Your task to perform on an android device: turn pop-ups on in chrome Image 0: 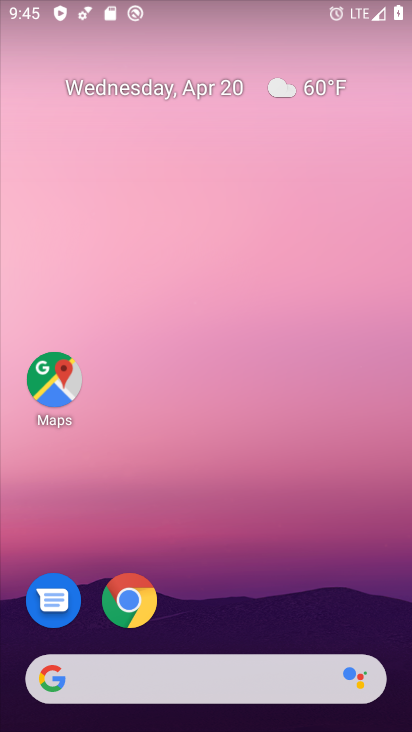
Step 0: click (134, 606)
Your task to perform on an android device: turn pop-ups on in chrome Image 1: 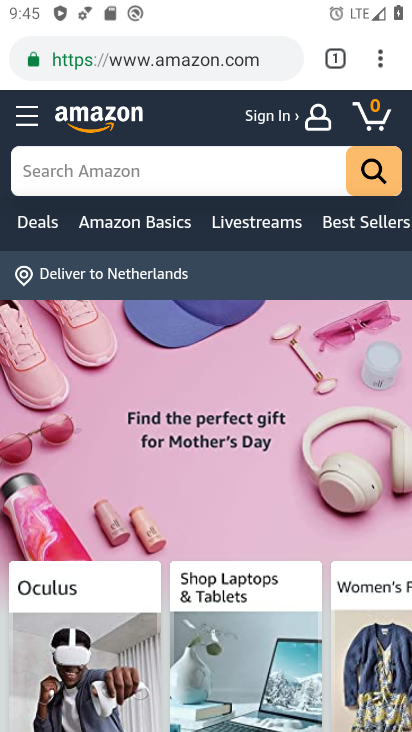
Step 1: click (383, 61)
Your task to perform on an android device: turn pop-ups on in chrome Image 2: 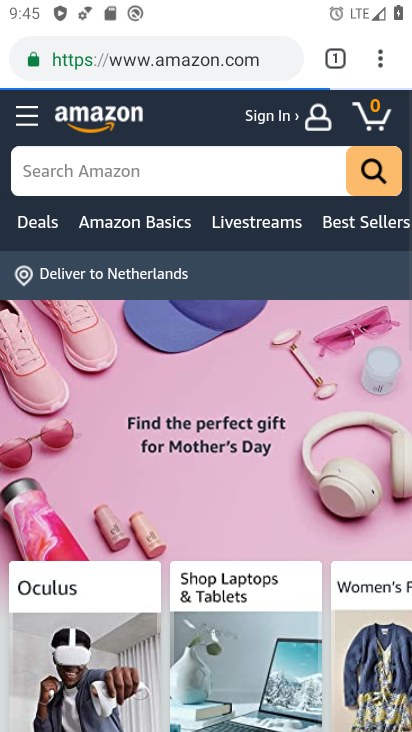
Step 2: drag from (375, 66) to (229, 625)
Your task to perform on an android device: turn pop-ups on in chrome Image 3: 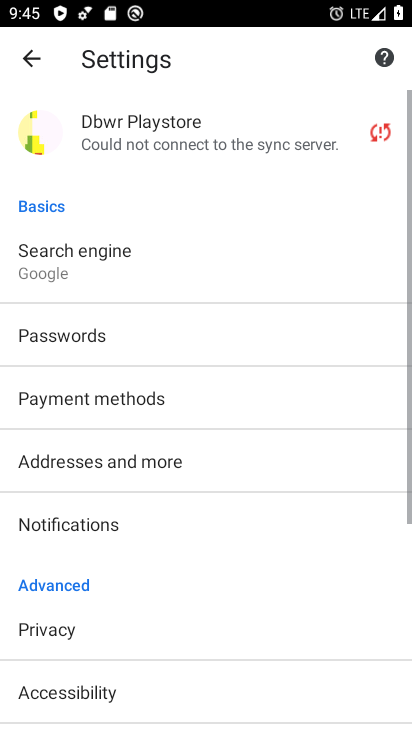
Step 3: drag from (228, 625) to (237, 149)
Your task to perform on an android device: turn pop-ups on in chrome Image 4: 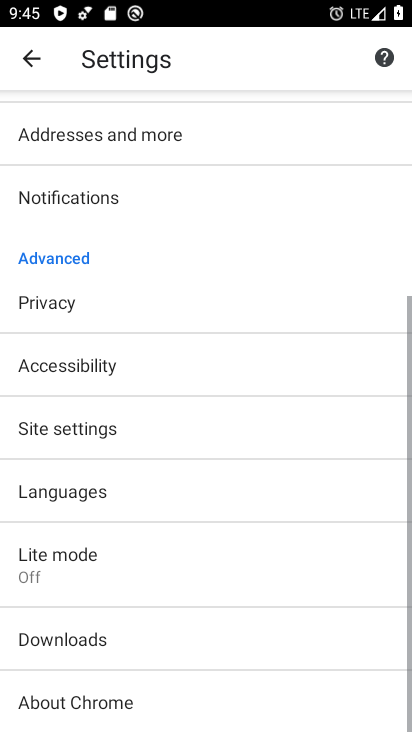
Step 4: click (101, 431)
Your task to perform on an android device: turn pop-ups on in chrome Image 5: 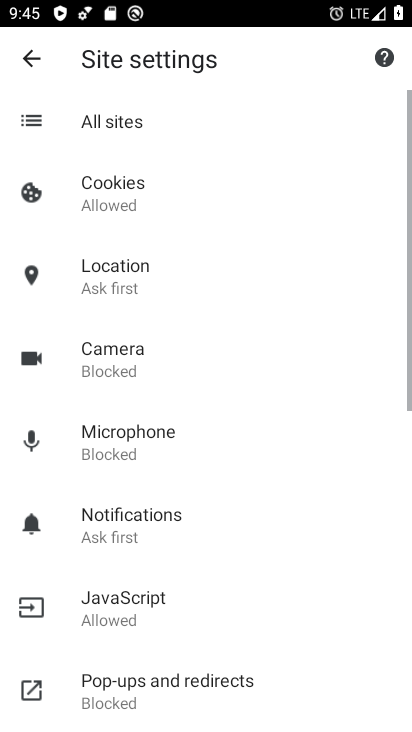
Step 5: drag from (207, 513) to (187, 223)
Your task to perform on an android device: turn pop-ups on in chrome Image 6: 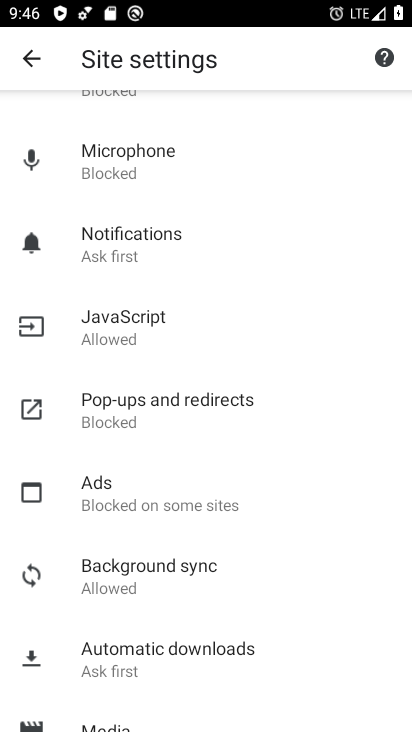
Step 6: click (116, 418)
Your task to perform on an android device: turn pop-ups on in chrome Image 7: 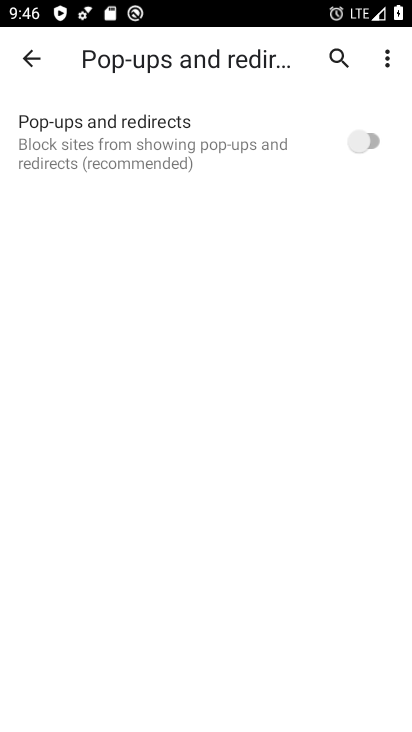
Step 7: click (360, 152)
Your task to perform on an android device: turn pop-ups on in chrome Image 8: 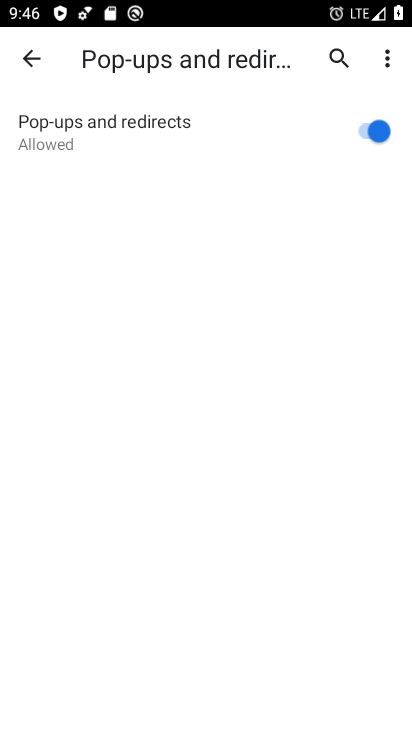
Step 8: task complete